Your task to perform on an android device: set the stopwatch Image 0: 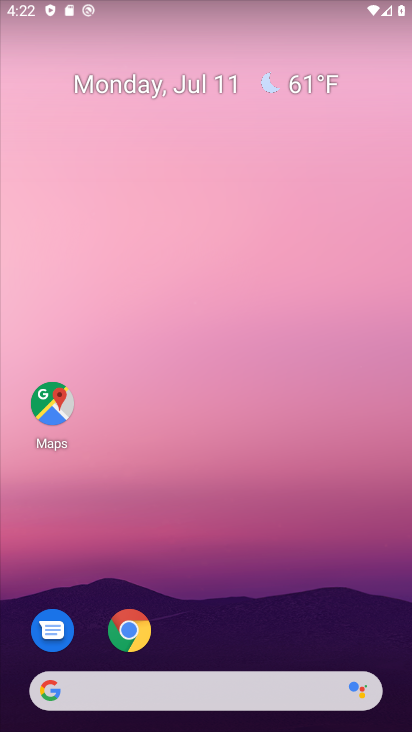
Step 0: drag from (300, 618) to (303, 126)
Your task to perform on an android device: set the stopwatch Image 1: 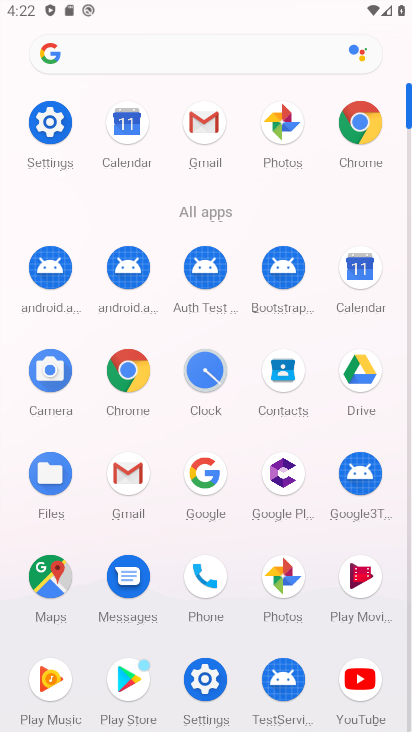
Step 1: click (200, 378)
Your task to perform on an android device: set the stopwatch Image 2: 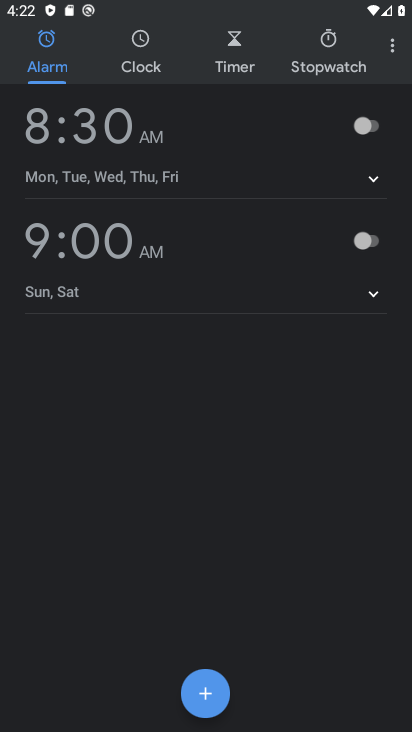
Step 2: click (305, 52)
Your task to perform on an android device: set the stopwatch Image 3: 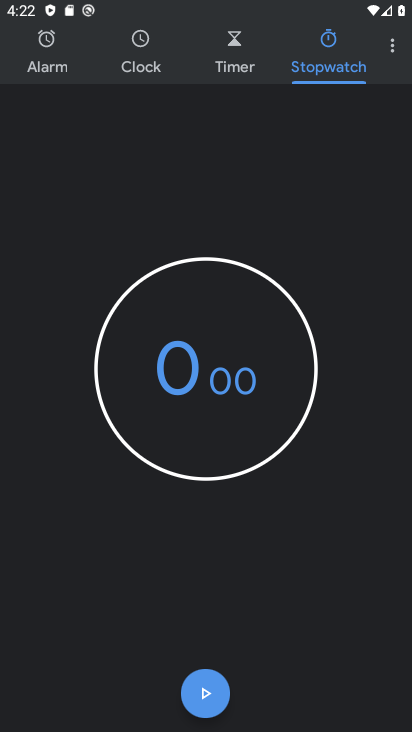
Step 3: click (207, 686)
Your task to perform on an android device: set the stopwatch Image 4: 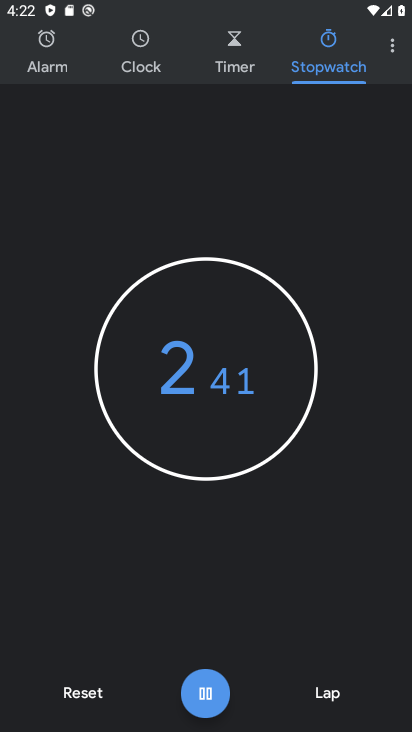
Step 4: task complete